Your task to perform on an android device: open the mobile data screen to see how much data has been used Image 0: 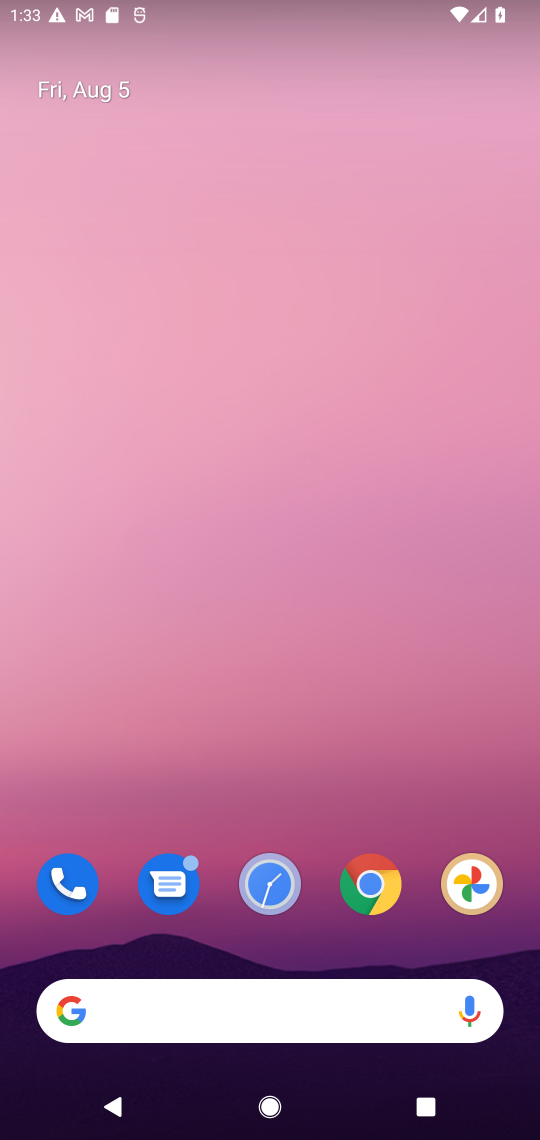
Step 0: drag from (419, 931) to (268, 390)
Your task to perform on an android device: open the mobile data screen to see how much data has been used Image 1: 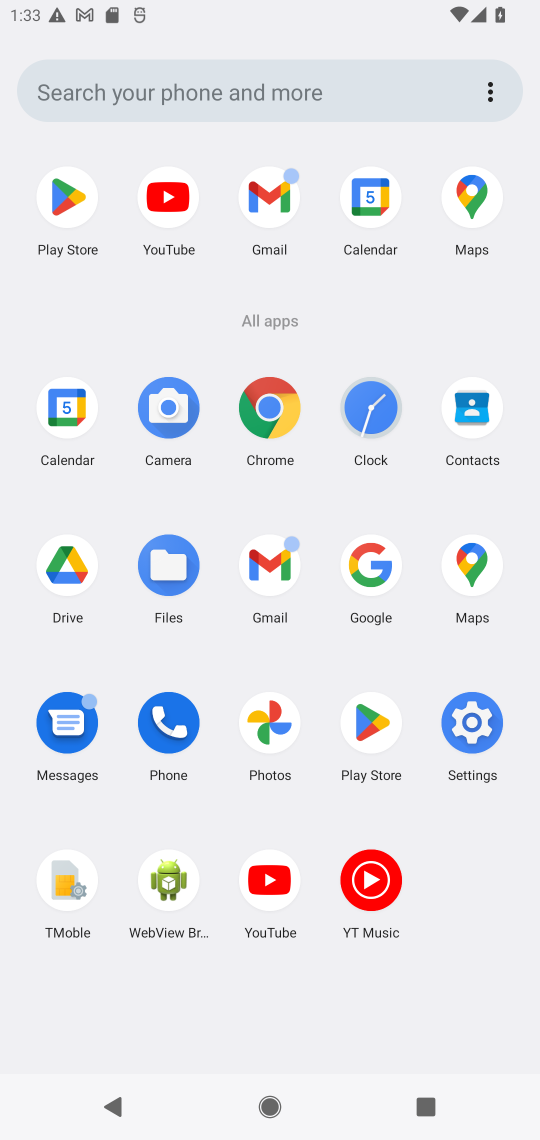
Step 1: click (448, 727)
Your task to perform on an android device: open the mobile data screen to see how much data has been used Image 2: 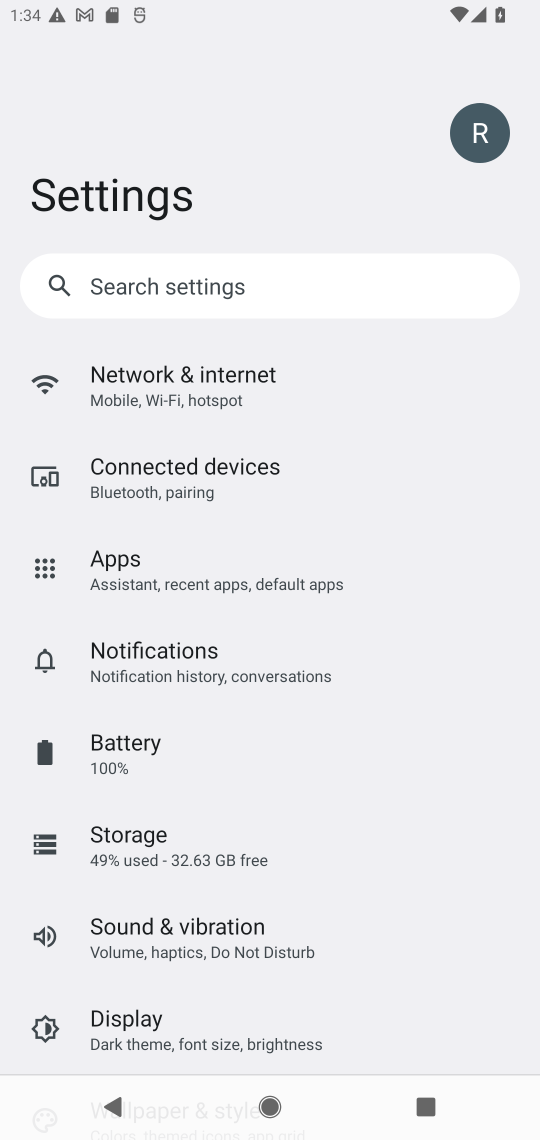
Step 2: click (151, 394)
Your task to perform on an android device: open the mobile data screen to see how much data has been used Image 3: 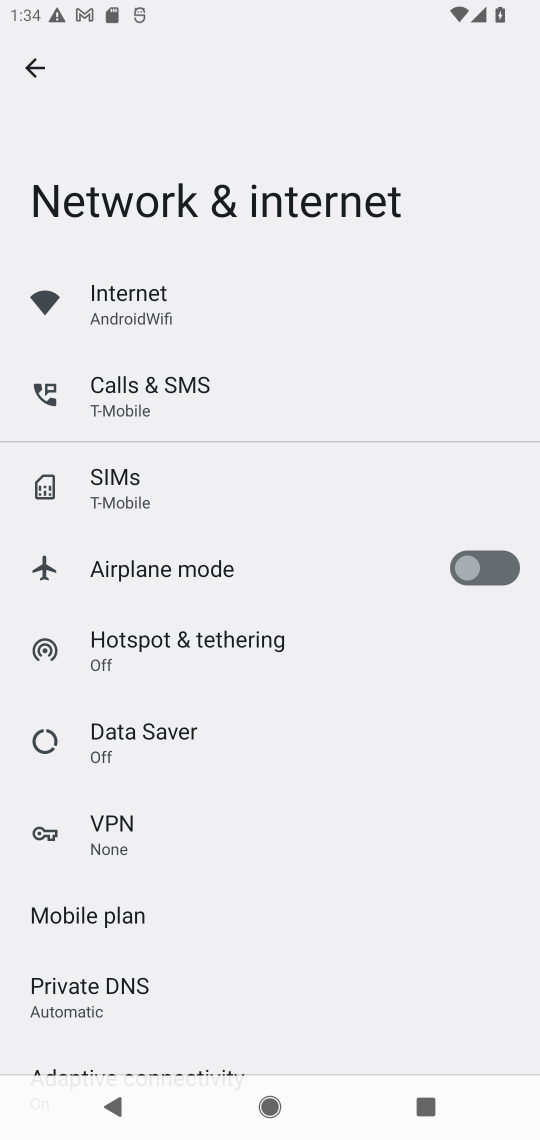
Step 3: task complete